Your task to perform on an android device: Search for Mexican restaurants on Maps Image 0: 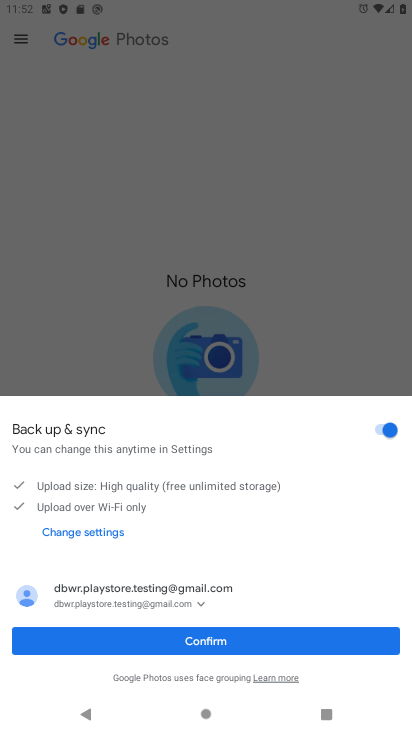
Step 0: press home button
Your task to perform on an android device: Search for Mexican restaurants on Maps Image 1: 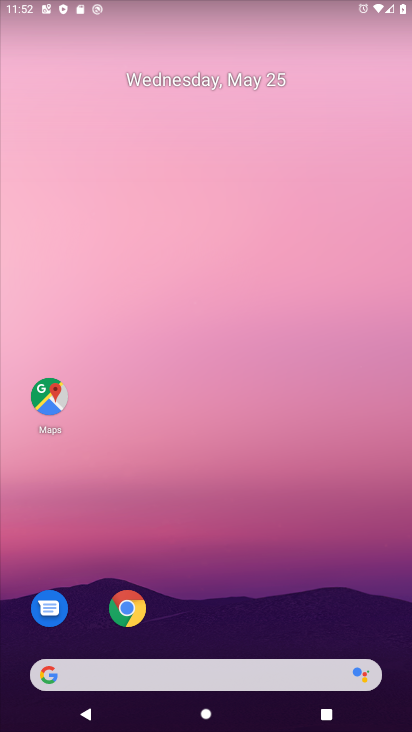
Step 1: drag from (236, 730) to (234, 112)
Your task to perform on an android device: Search for Mexican restaurants on Maps Image 2: 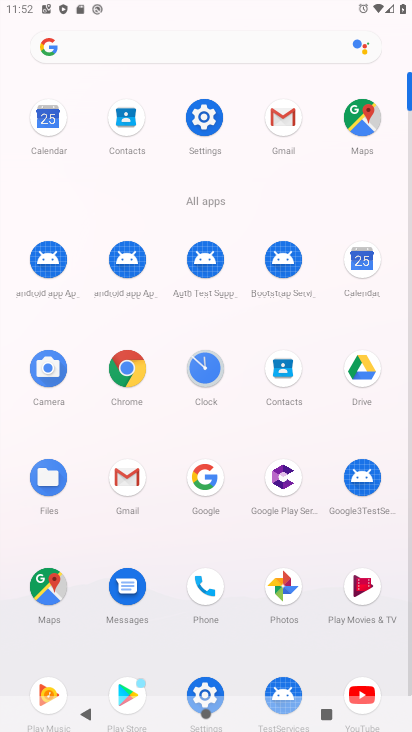
Step 2: click (42, 587)
Your task to perform on an android device: Search for Mexican restaurants on Maps Image 3: 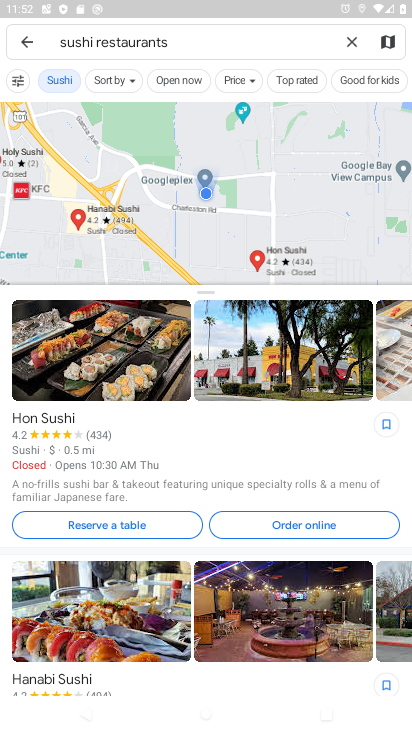
Step 3: click (353, 38)
Your task to perform on an android device: Search for Mexican restaurants on Maps Image 4: 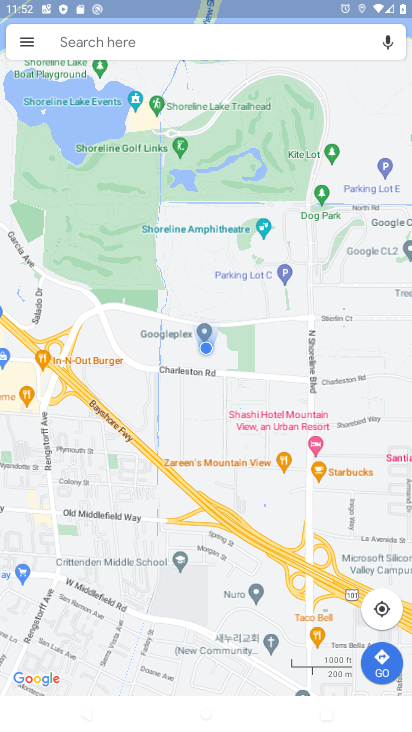
Step 4: click (277, 35)
Your task to perform on an android device: Search for Mexican restaurants on Maps Image 5: 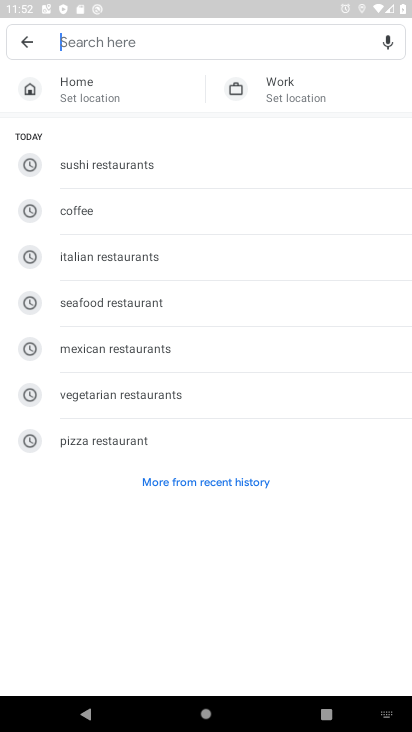
Step 5: type "Mexican restaurants"
Your task to perform on an android device: Search for Mexican restaurants on Maps Image 6: 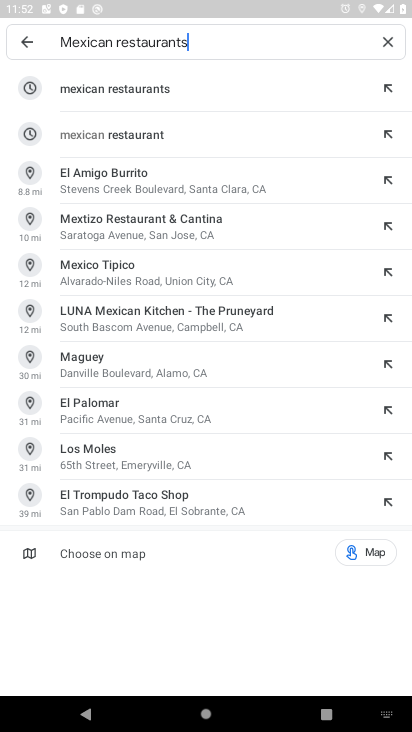
Step 6: click (134, 87)
Your task to perform on an android device: Search for Mexican restaurants on Maps Image 7: 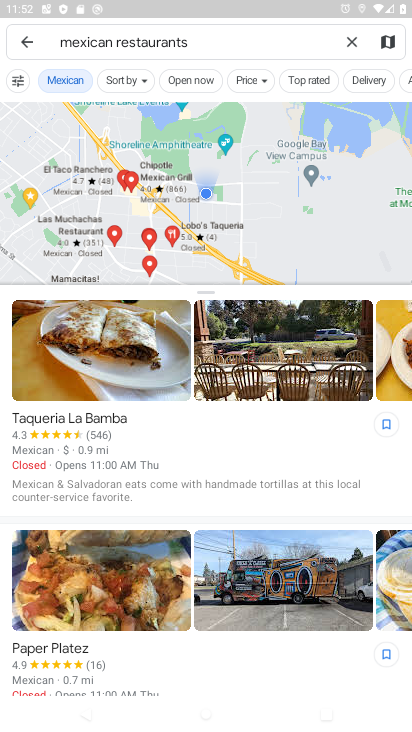
Step 7: task complete